Your task to perform on an android device: Go to display settings Image 0: 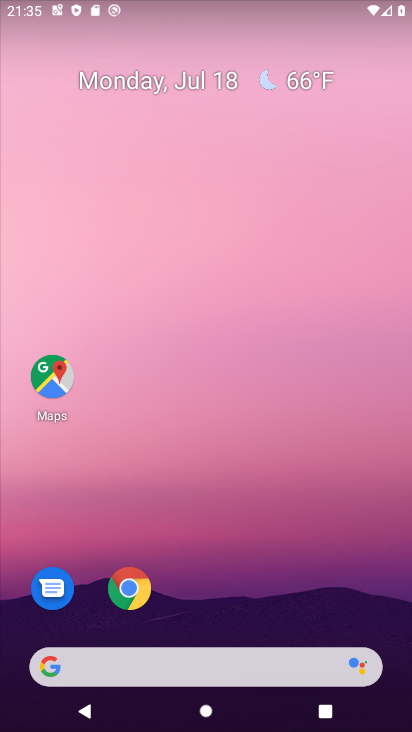
Step 0: press home button
Your task to perform on an android device: Go to display settings Image 1: 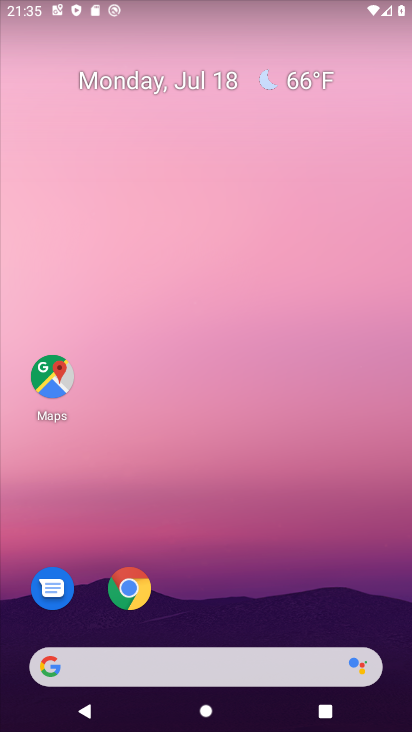
Step 1: drag from (214, 667) to (328, 83)
Your task to perform on an android device: Go to display settings Image 2: 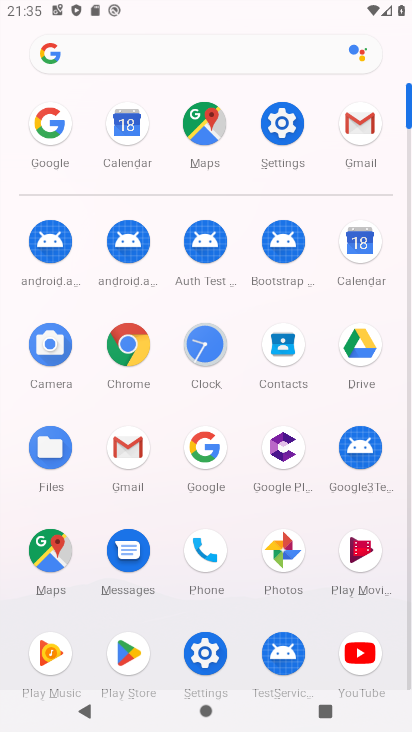
Step 2: click (273, 122)
Your task to perform on an android device: Go to display settings Image 3: 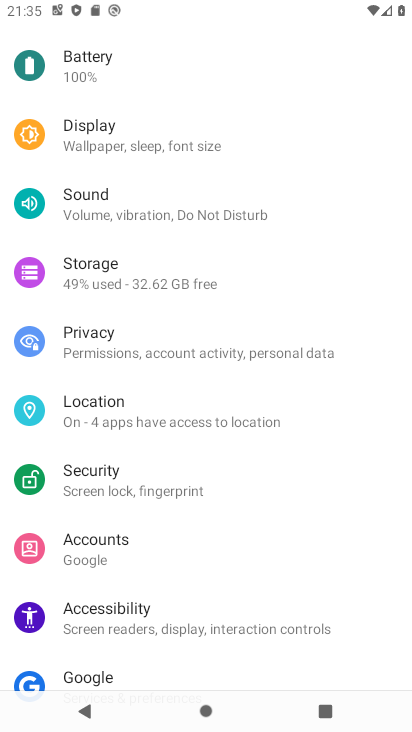
Step 3: click (123, 136)
Your task to perform on an android device: Go to display settings Image 4: 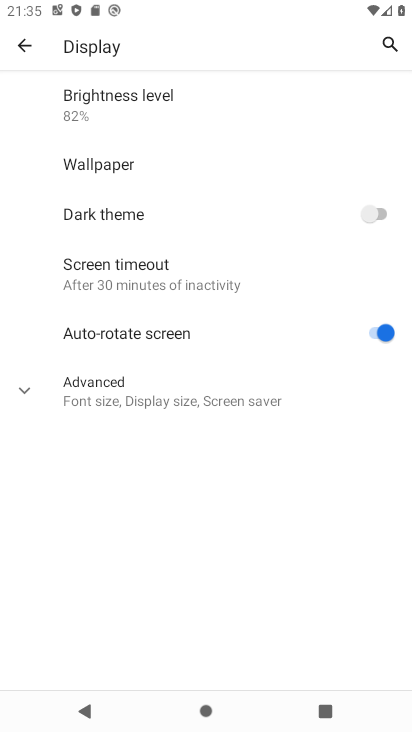
Step 4: task complete